Your task to perform on an android device: turn on the 24-hour format for clock Image 0: 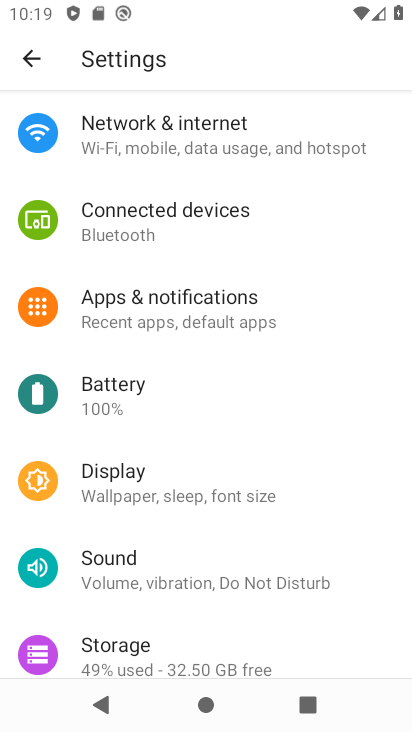
Step 0: press home button
Your task to perform on an android device: turn on the 24-hour format for clock Image 1: 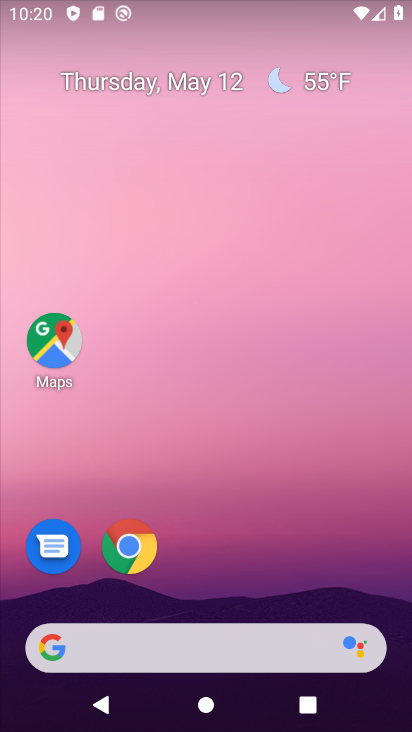
Step 1: drag from (188, 575) to (188, 180)
Your task to perform on an android device: turn on the 24-hour format for clock Image 2: 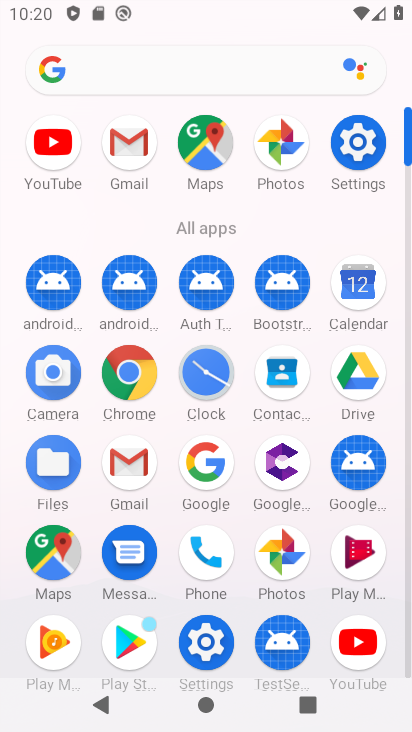
Step 2: click (203, 379)
Your task to perform on an android device: turn on the 24-hour format for clock Image 3: 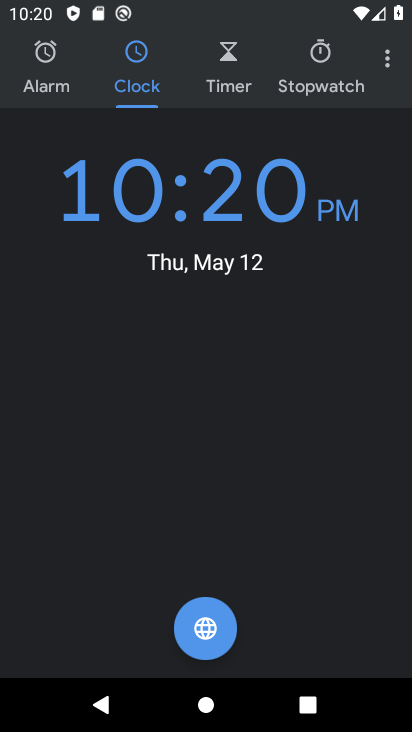
Step 3: click (390, 56)
Your task to perform on an android device: turn on the 24-hour format for clock Image 4: 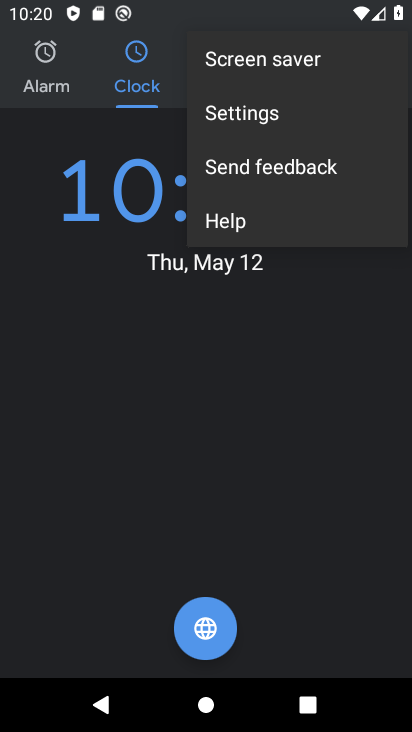
Step 4: click (275, 112)
Your task to perform on an android device: turn on the 24-hour format for clock Image 5: 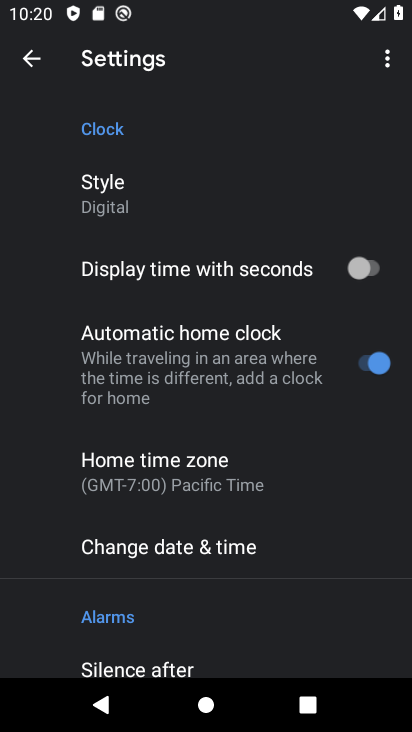
Step 5: drag from (196, 575) to (196, 138)
Your task to perform on an android device: turn on the 24-hour format for clock Image 6: 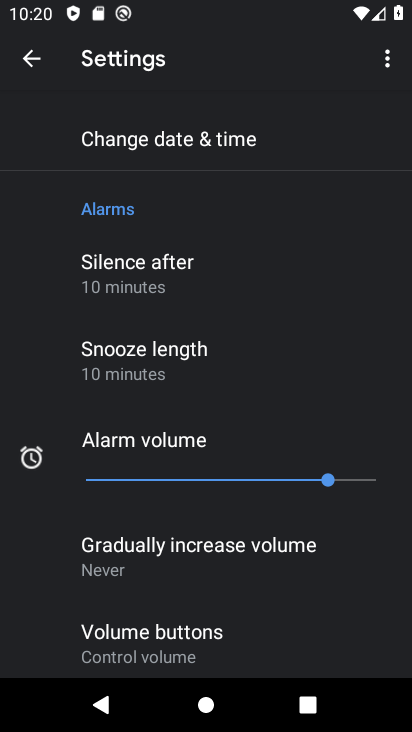
Step 6: drag from (182, 523) to (194, 223)
Your task to perform on an android device: turn on the 24-hour format for clock Image 7: 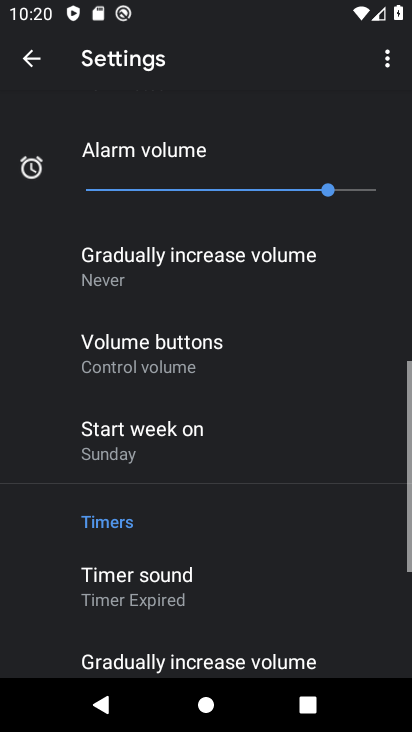
Step 7: drag from (170, 555) to (203, 205)
Your task to perform on an android device: turn on the 24-hour format for clock Image 8: 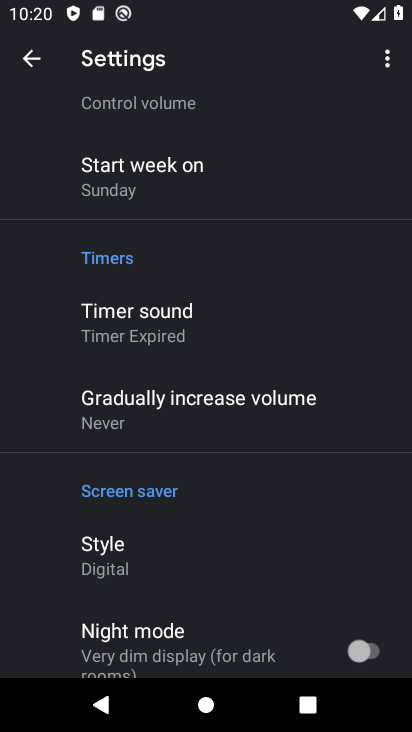
Step 8: drag from (208, 493) to (210, 322)
Your task to perform on an android device: turn on the 24-hour format for clock Image 9: 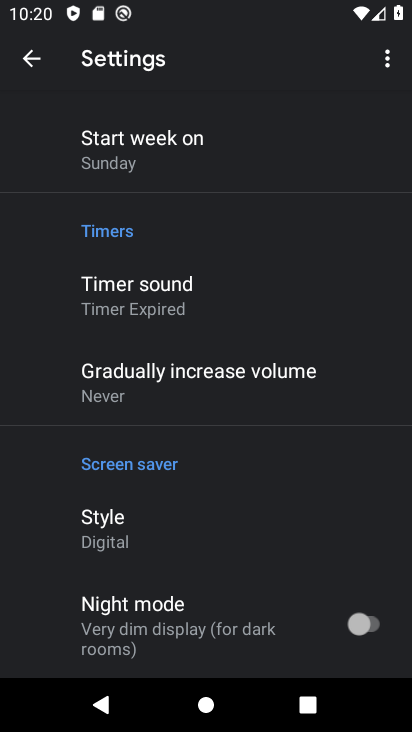
Step 9: drag from (213, 226) to (236, 619)
Your task to perform on an android device: turn on the 24-hour format for clock Image 10: 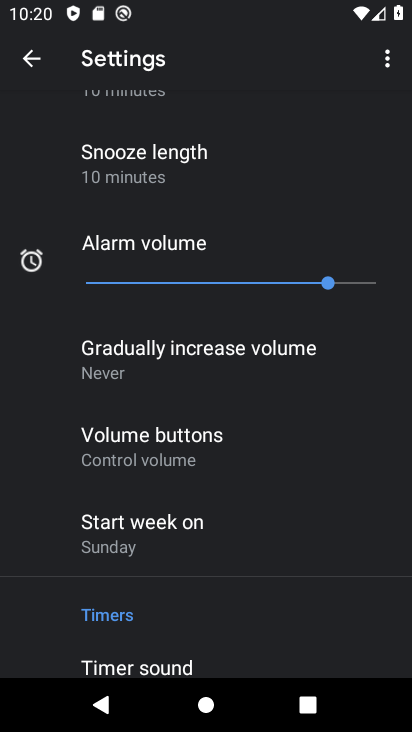
Step 10: drag from (219, 171) to (219, 600)
Your task to perform on an android device: turn on the 24-hour format for clock Image 11: 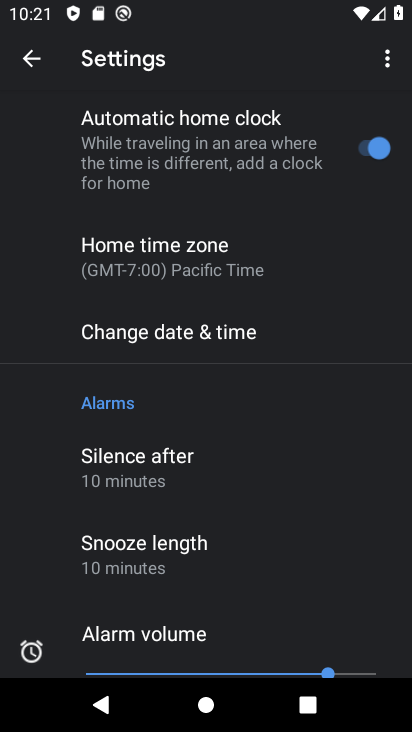
Step 11: click (187, 338)
Your task to perform on an android device: turn on the 24-hour format for clock Image 12: 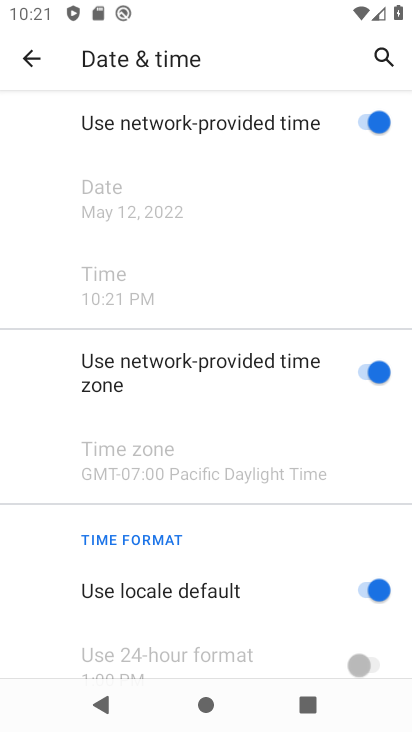
Step 12: drag from (215, 496) to (310, 160)
Your task to perform on an android device: turn on the 24-hour format for clock Image 13: 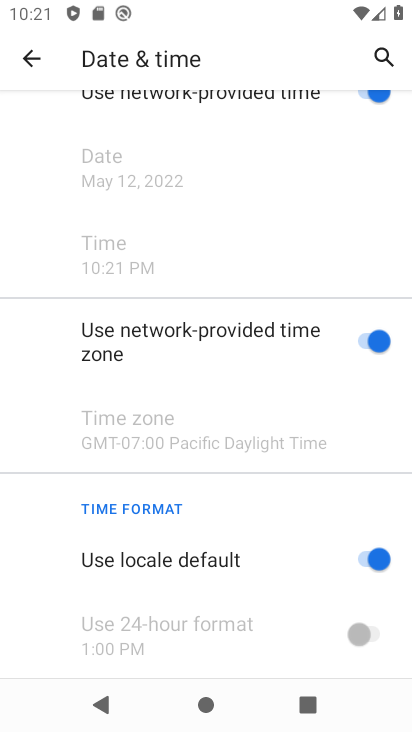
Step 13: click (368, 566)
Your task to perform on an android device: turn on the 24-hour format for clock Image 14: 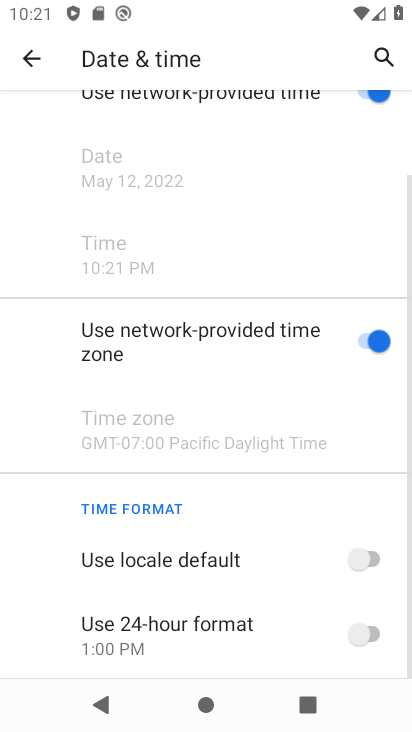
Step 14: click (368, 637)
Your task to perform on an android device: turn on the 24-hour format for clock Image 15: 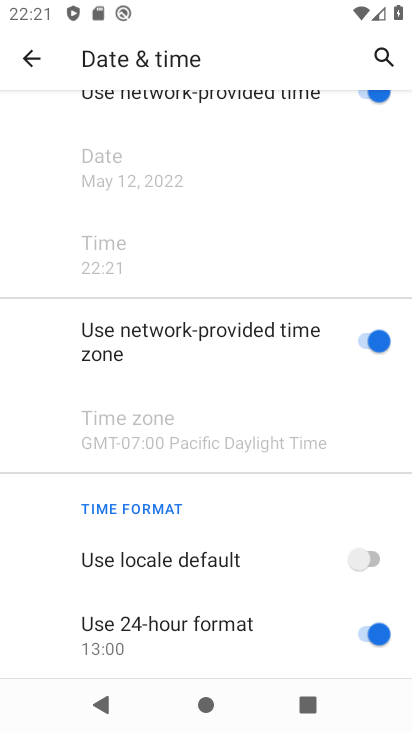
Step 15: task complete